Your task to perform on an android device: Open Android settings Image 0: 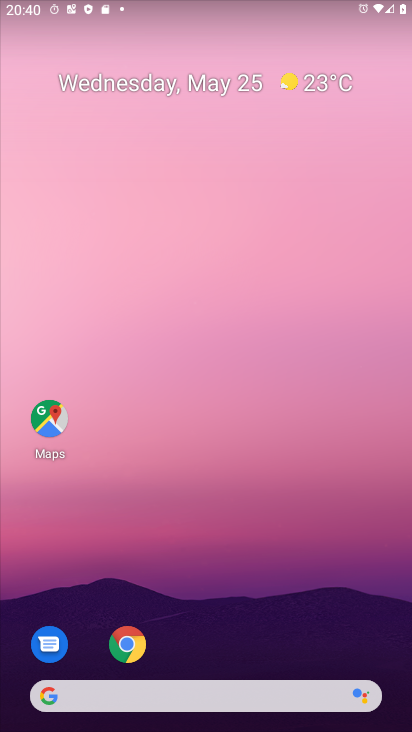
Step 0: drag from (270, 701) to (325, 155)
Your task to perform on an android device: Open Android settings Image 1: 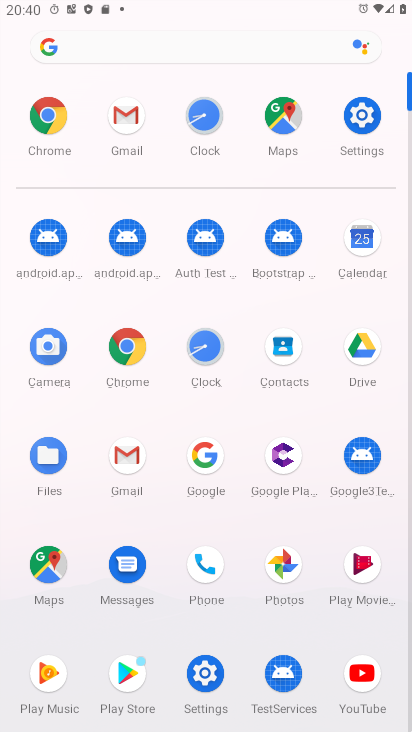
Step 1: click (353, 131)
Your task to perform on an android device: Open Android settings Image 2: 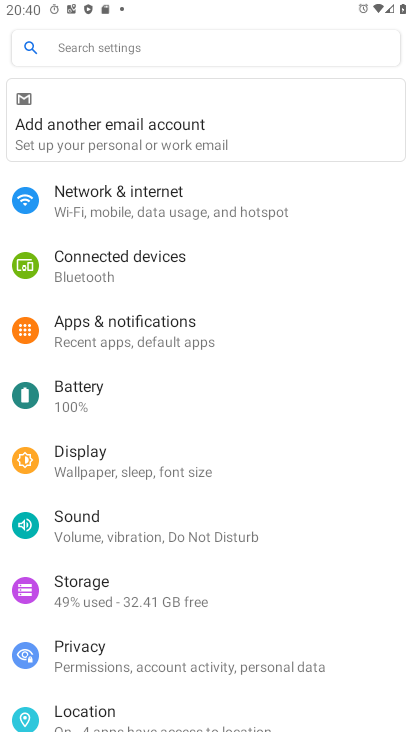
Step 2: click (195, 46)
Your task to perform on an android device: Open Android settings Image 3: 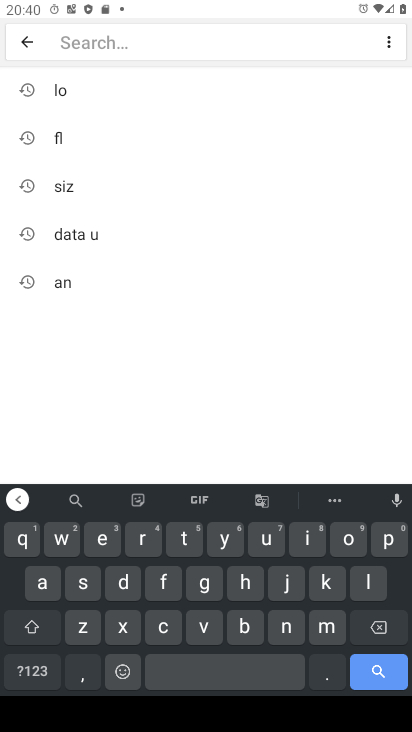
Step 3: click (85, 293)
Your task to perform on an android device: Open Android settings Image 4: 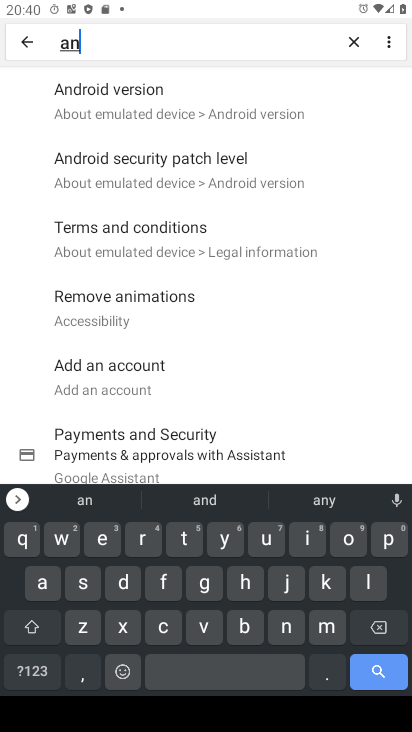
Step 4: click (170, 115)
Your task to perform on an android device: Open Android settings Image 5: 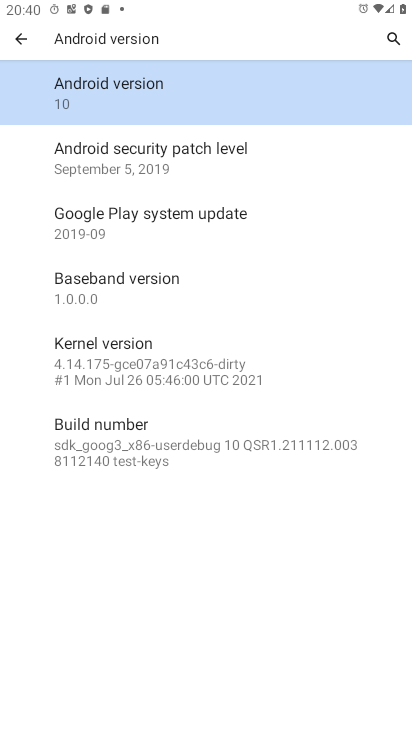
Step 5: task complete